Your task to perform on an android device: toggle data saver in the chrome app Image 0: 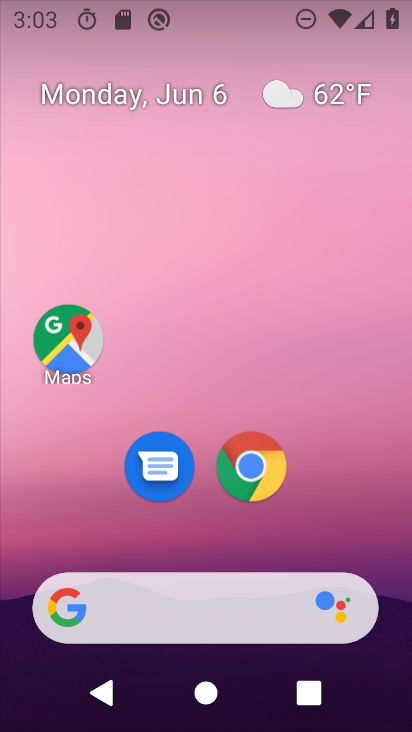
Step 0: click (248, 466)
Your task to perform on an android device: toggle data saver in the chrome app Image 1: 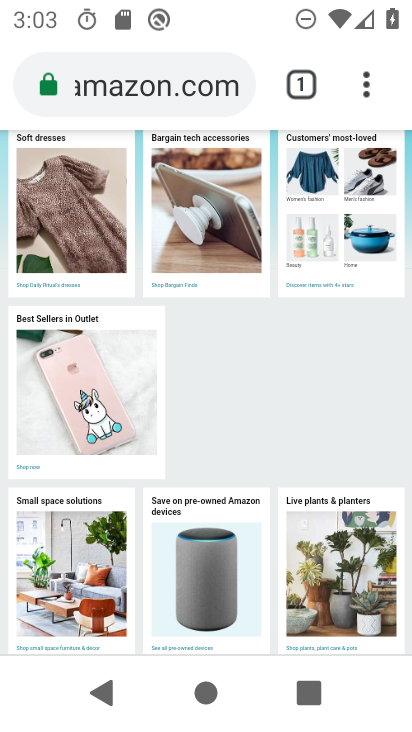
Step 1: click (372, 82)
Your task to perform on an android device: toggle data saver in the chrome app Image 2: 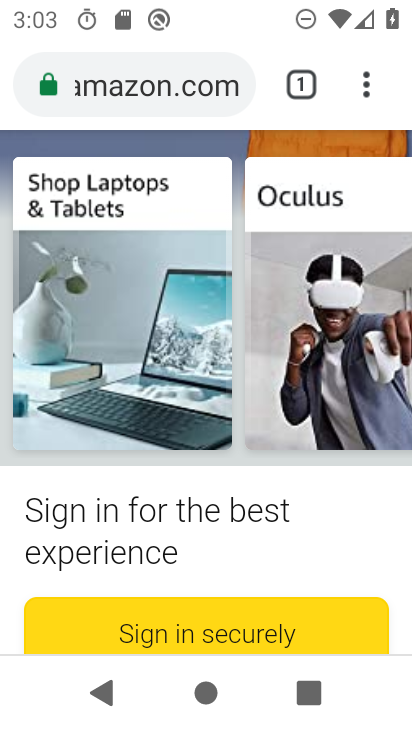
Step 2: click (369, 98)
Your task to perform on an android device: toggle data saver in the chrome app Image 3: 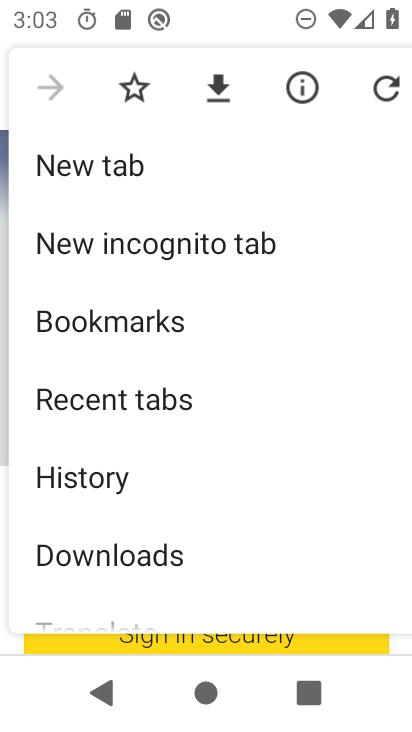
Step 3: drag from (105, 509) to (103, 222)
Your task to perform on an android device: toggle data saver in the chrome app Image 4: 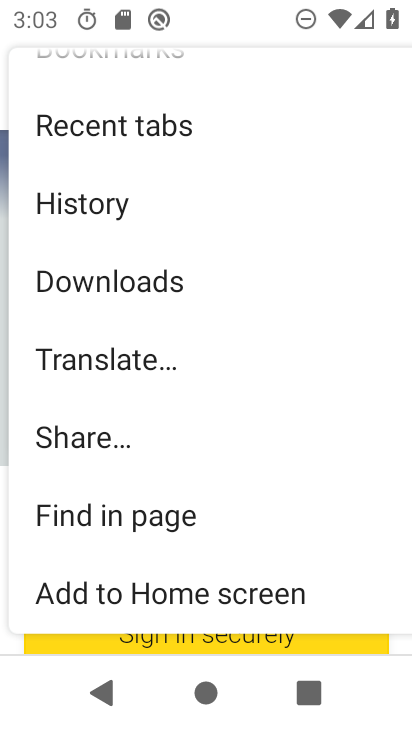
Step 4: drag from (117, 558) to (126, 239)
Your task to perform on an android device: toggle data saver in the chrome app Image 5: 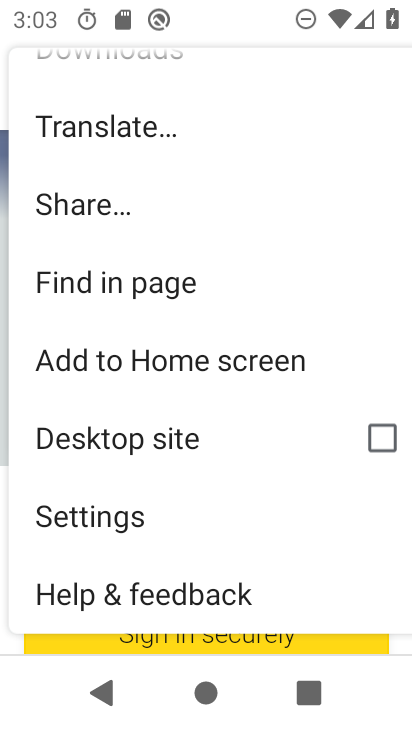
Step 5: click (117, 541)
Your task to perform on an android device: toggle data saver in the chrome app Image 6: 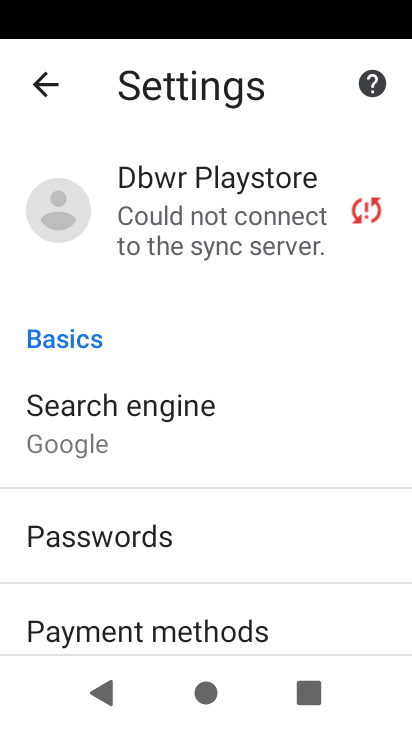
Step 6: drag from (168, 546) to (4, 359)
Your task to perform on an android device: toggle data saver in the chrome app Image 7: 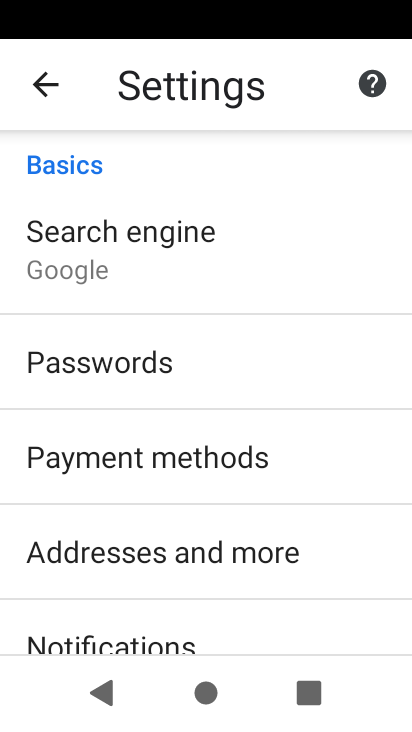
Step 7: drag from (219, 614) to (207, 247)
Your task to perform on an android device: toggle data saver in the chrome app Image 8: 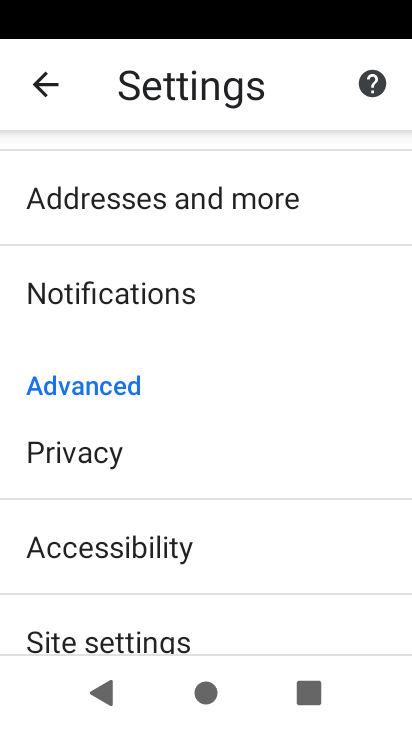
Step 8: drag from (194, 593) to (187, 345)
Your task to perform on an android device: toggle data saver in the chrome app Image 9: 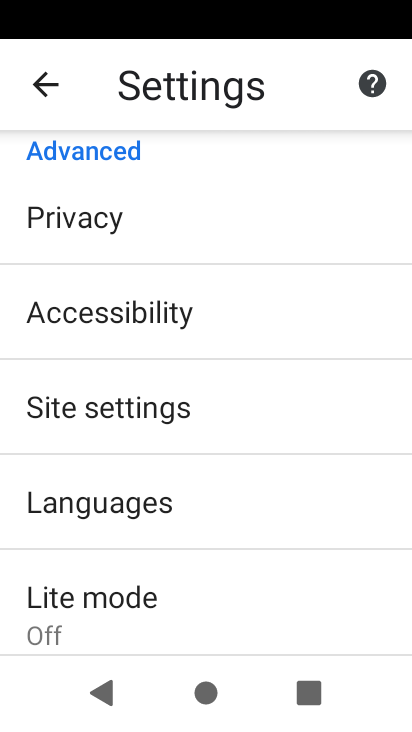
Step 9: click (146, 576)
Your task to perform on an android device: toggle data saver in the chrome app Image 10: 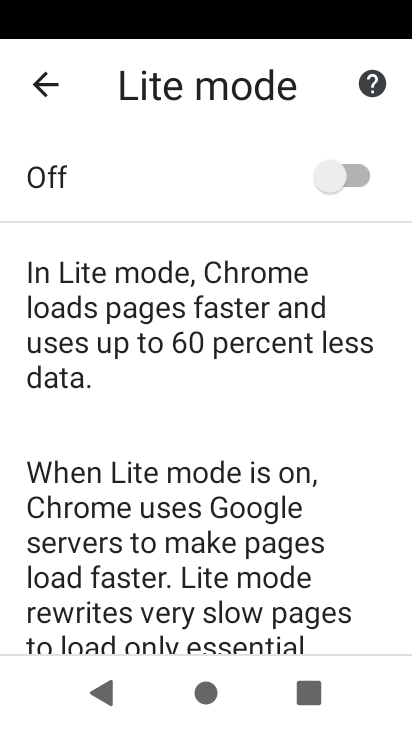
Step 10: click (362, 171)
Your task to perform on an android device: toggle data saver in the chrome app Image 11: 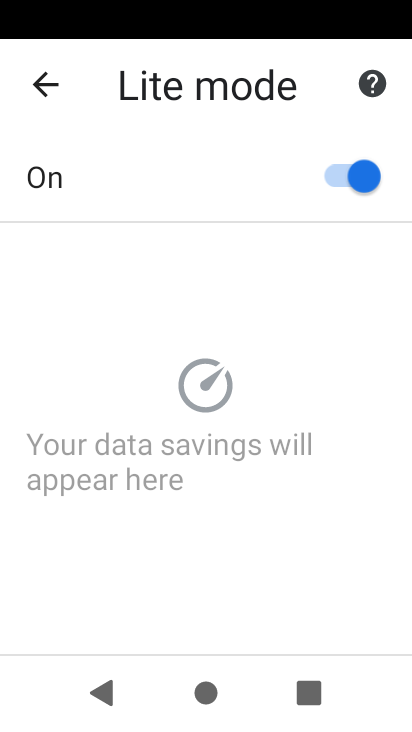
Step 11: task complete